Your task to perform on an android device: delete a single message in the gmail app Image 0: 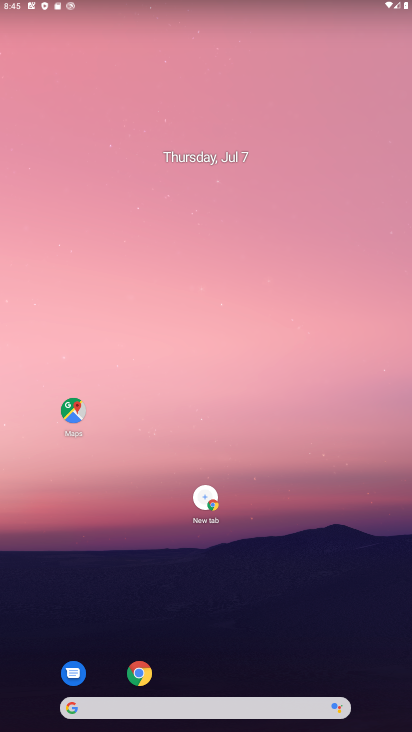
Step 0: press home button
Your task to perform on an android device: delete a single message in the gmail app Image 1: 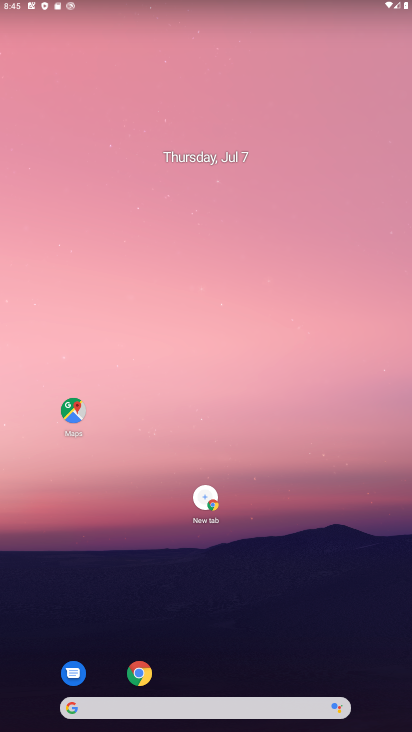
Step 1: drag from (282, 581) to (237, 78)
Your task to perform on an android device: delete a single message in the gmail app Image 2: 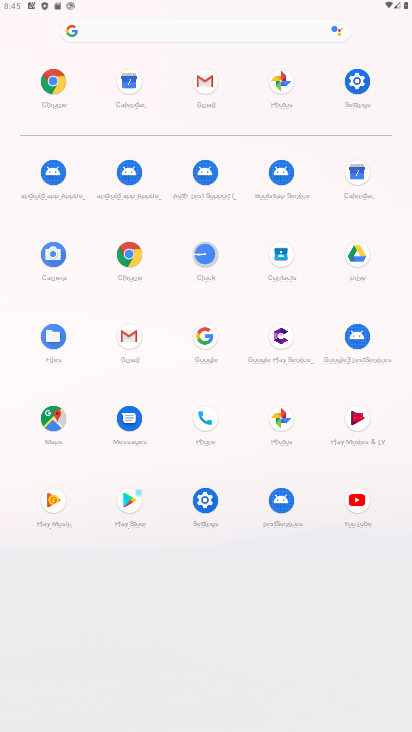
Step 2: click (204, 99)
Your task to perform on an android device: delete a single message in the gmail app Image 3: 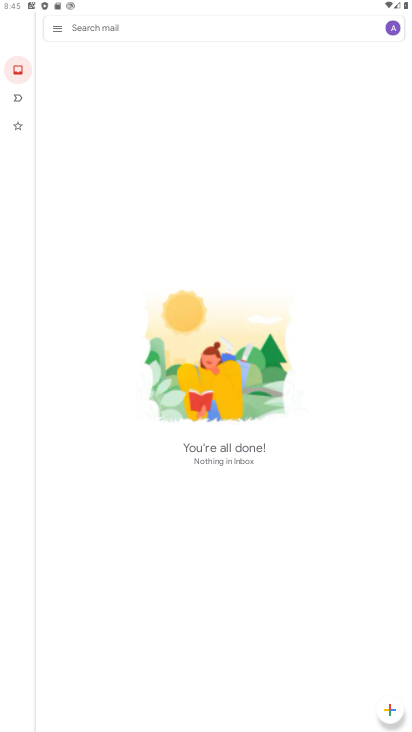
Step 3: click (63, 22)
Your task to perform on an android device: delete a single message in the gmail app Image 4: 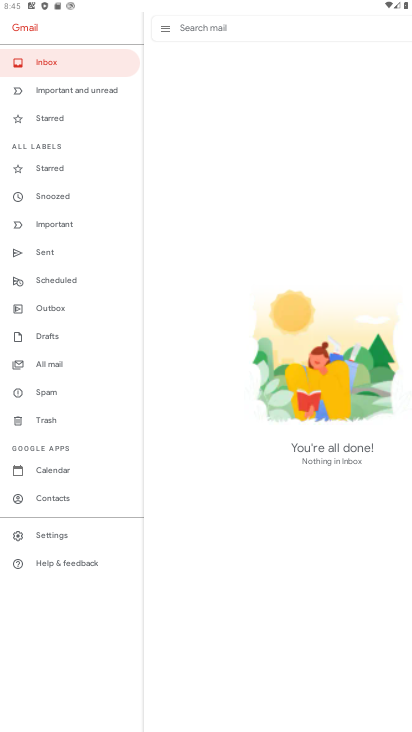
Step 4: click (46, 369)
Your task to perform on an android device: delete a single message in the gmail app Image 5: 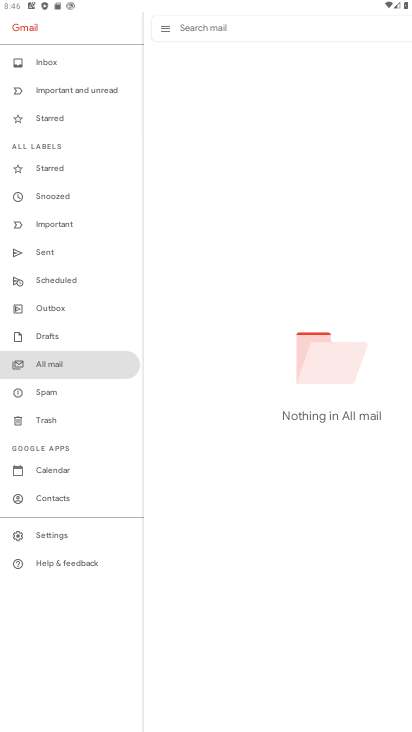
Step 5: task complete